Your task to perform on an android device: Go to Google Image 0: 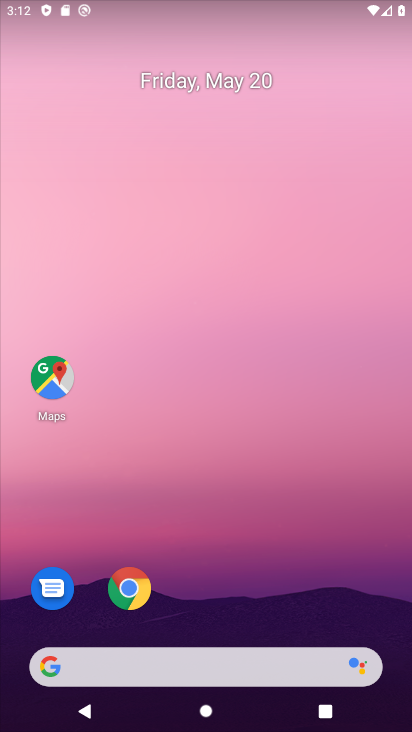
Step 0: press home button
Your task to perform on an android device: Go to Google Image 1: 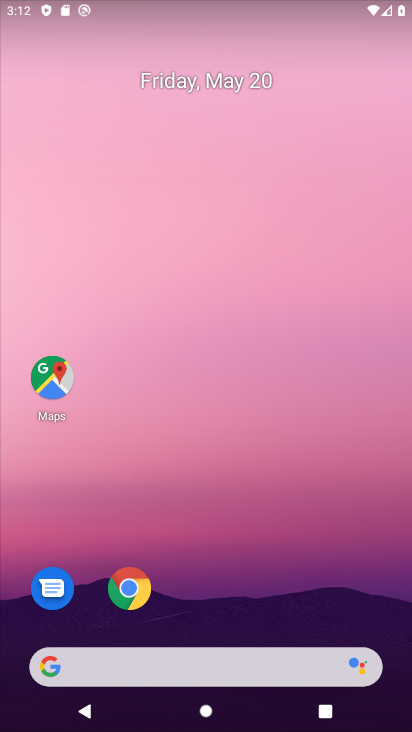
Step 1: drag from (159, 661) to (230, 182)
Your task to perform on an android device: Go to Google Image 2: 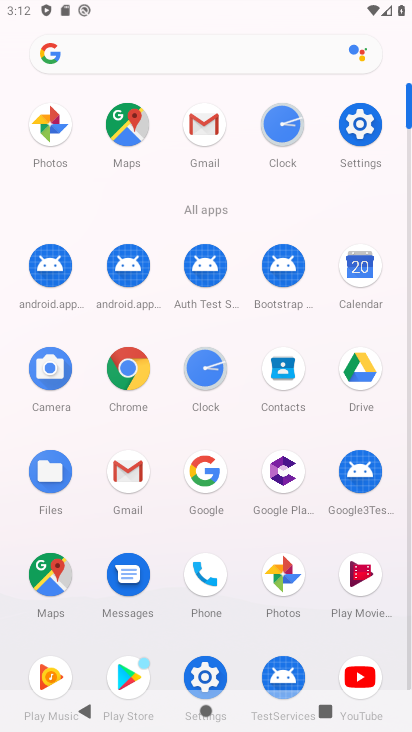
Step 2: click (211, 477)
Your task to perform on an android device: Go to Google Image 3: 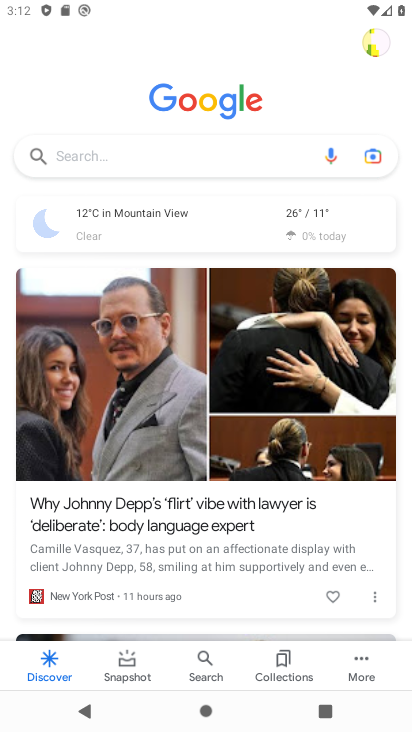
Step 3: task complete